Your task to perform on an android device: open app "Move to iOS" (install if not already installed) and enter user name: "Decca@icloud.com" and password: "reabbreviate" Image 0: 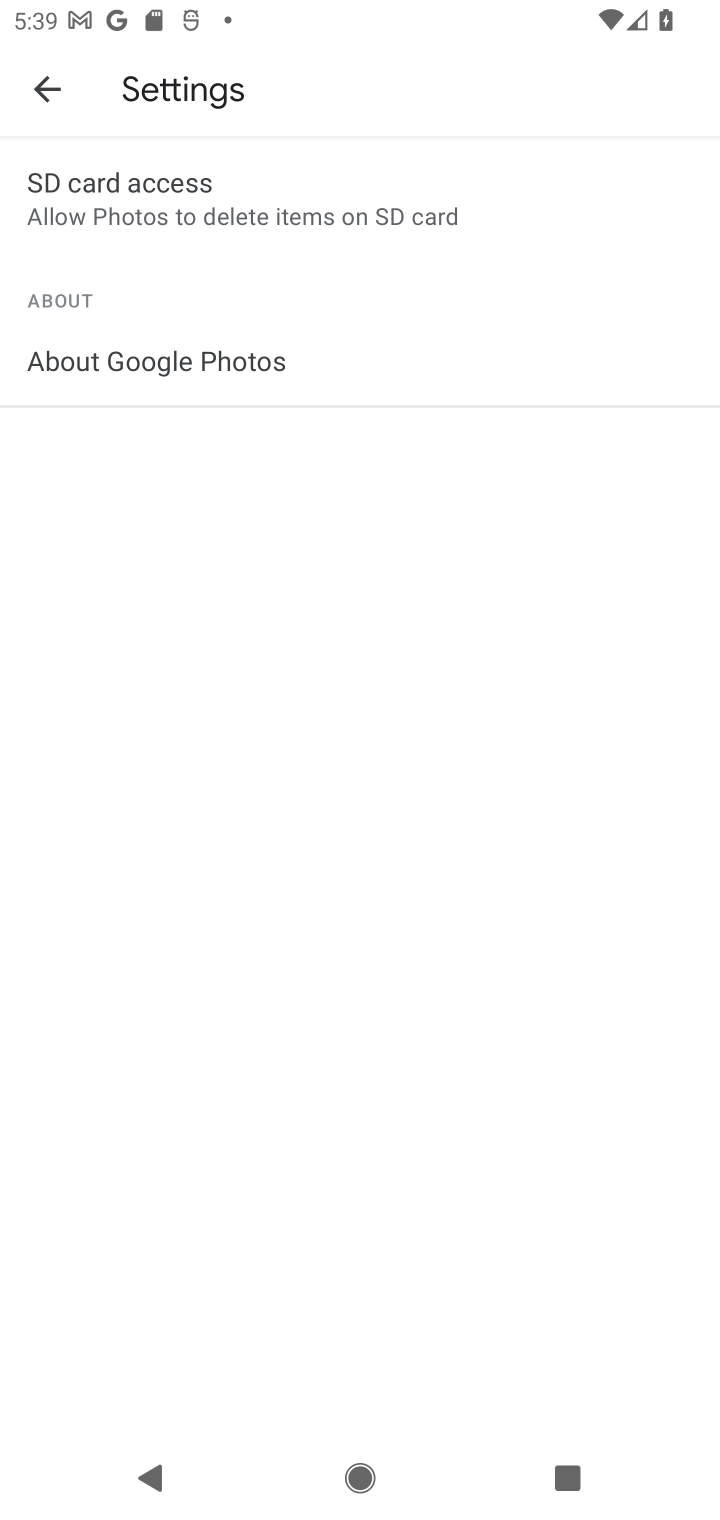
Step 0: press home button
Your task to perform on an android device: open app "Move to iOS" (install if not already installed) and enter user name: "Decca@icloud.com" and password: "reabbreviate" Image 1: 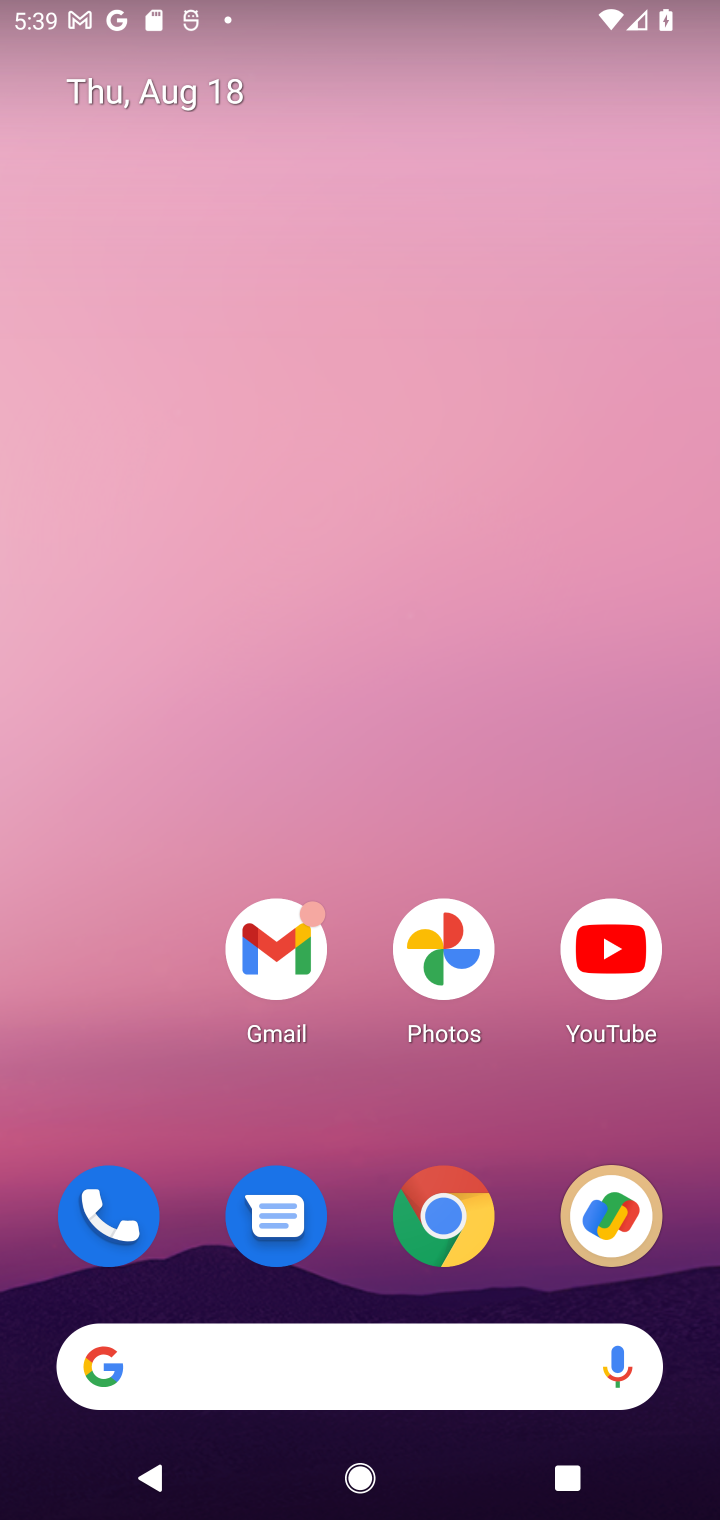
Step 1: drag from (520, 1231) to (478, 372)
Your task to perform on an android device: open app "Move to iOS" (install if not already installed) and enter user name: "Decca@icloud.com" and password: "reabbreviate" Image 2: 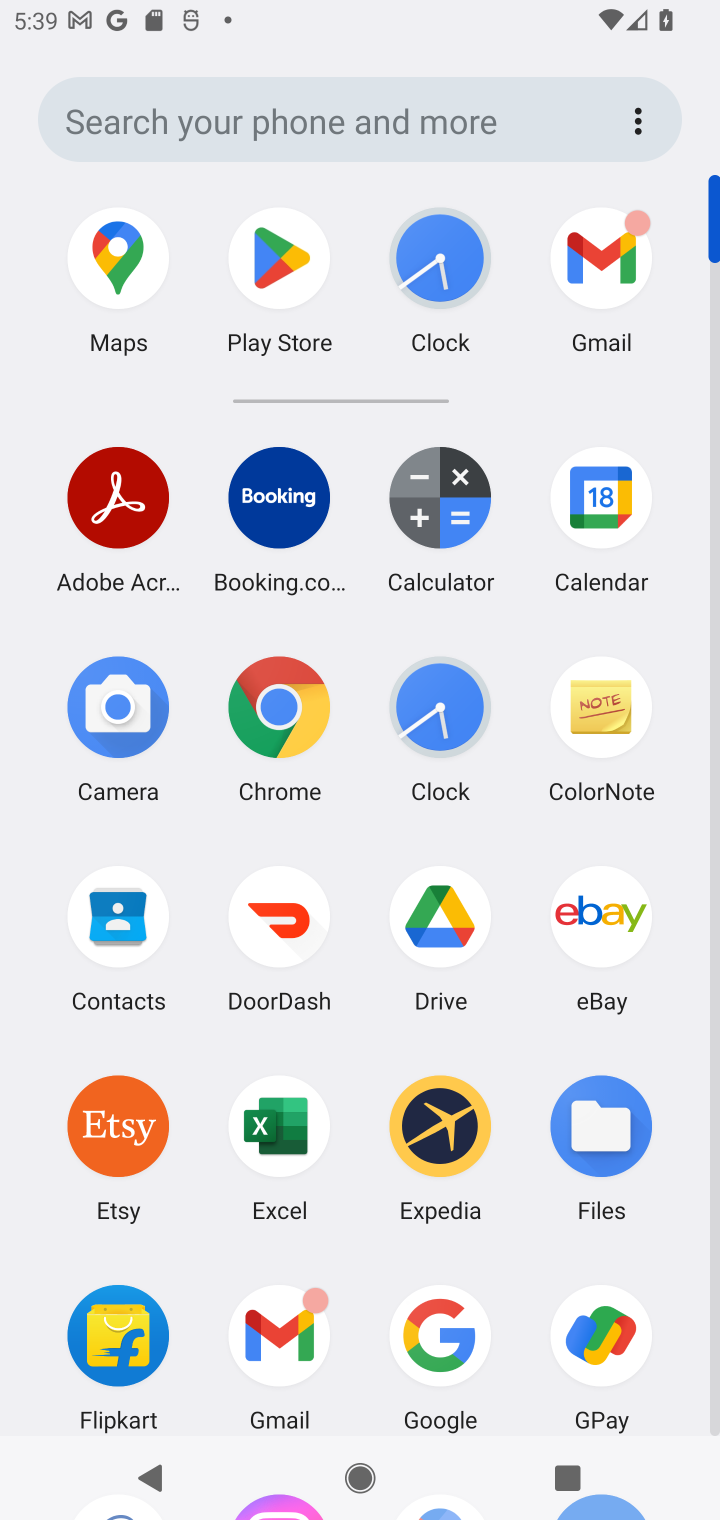
Step 2: drag from (692, 1397) to (683, 674)
Your task to perform on an android device: open app "Move to iOS" (install if not already installed) and enter user name: "Decca@icloud.com" and password: "reabbreviate" Image 3: 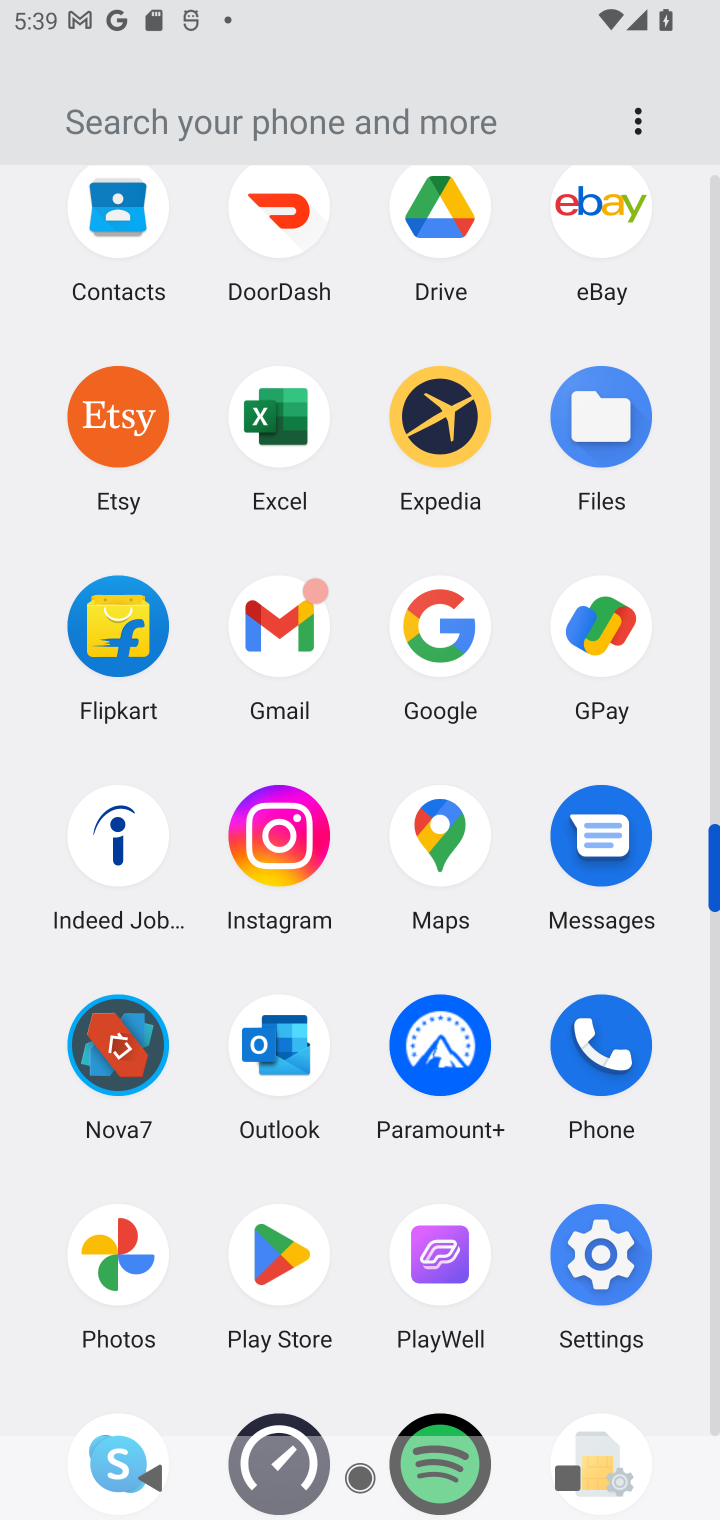
Step 3: click (277, 1253)
Your task to perform on an android device: open app "Move to iOS" (install if not already installed) and enter user name: "Decca@icloud.com" and password: "reabbreviate" Image 4: 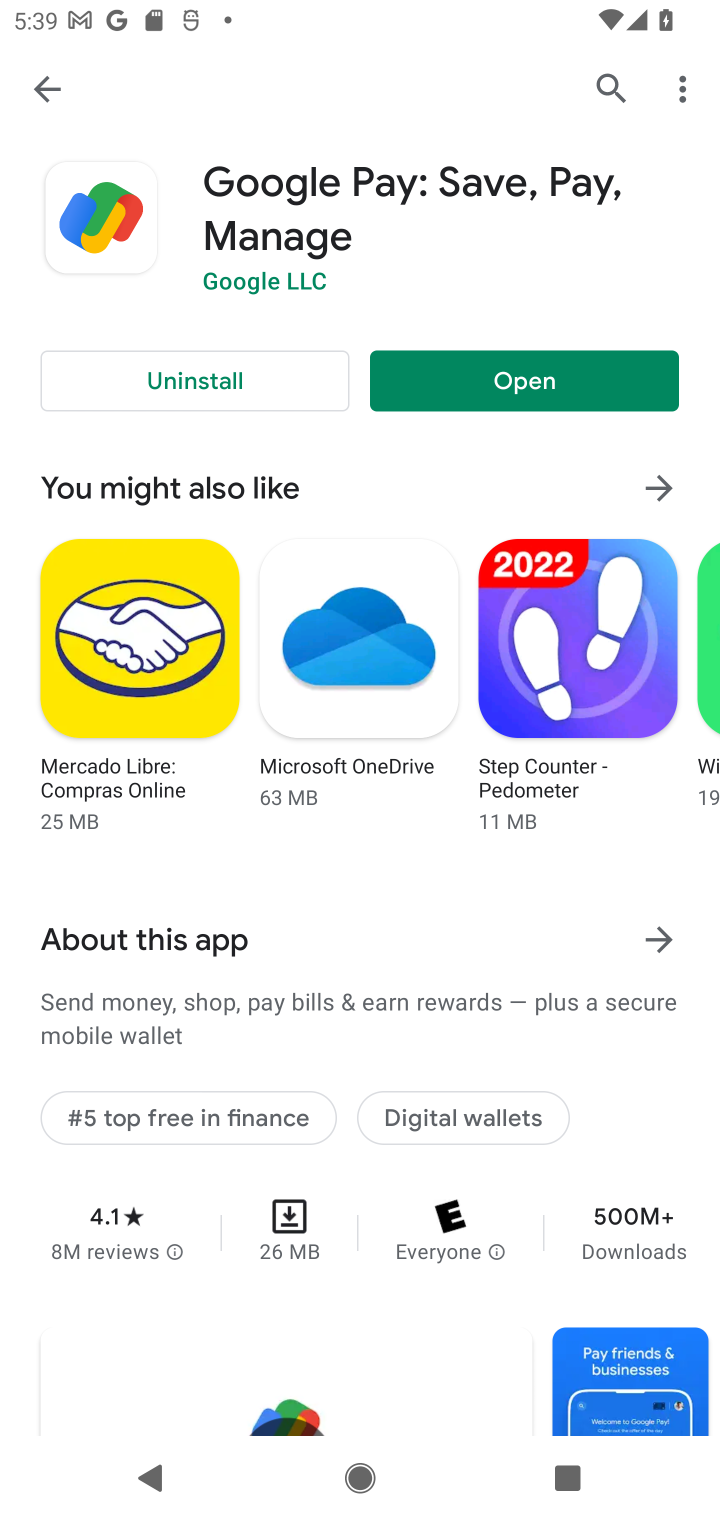
Step 4: click (595, 78)
Your task to perform on an android device: open app "Move to iOS" (install if not already installed) and enter user name: "Decca@icloud.com" and password: "reabbreviate" Image 5: 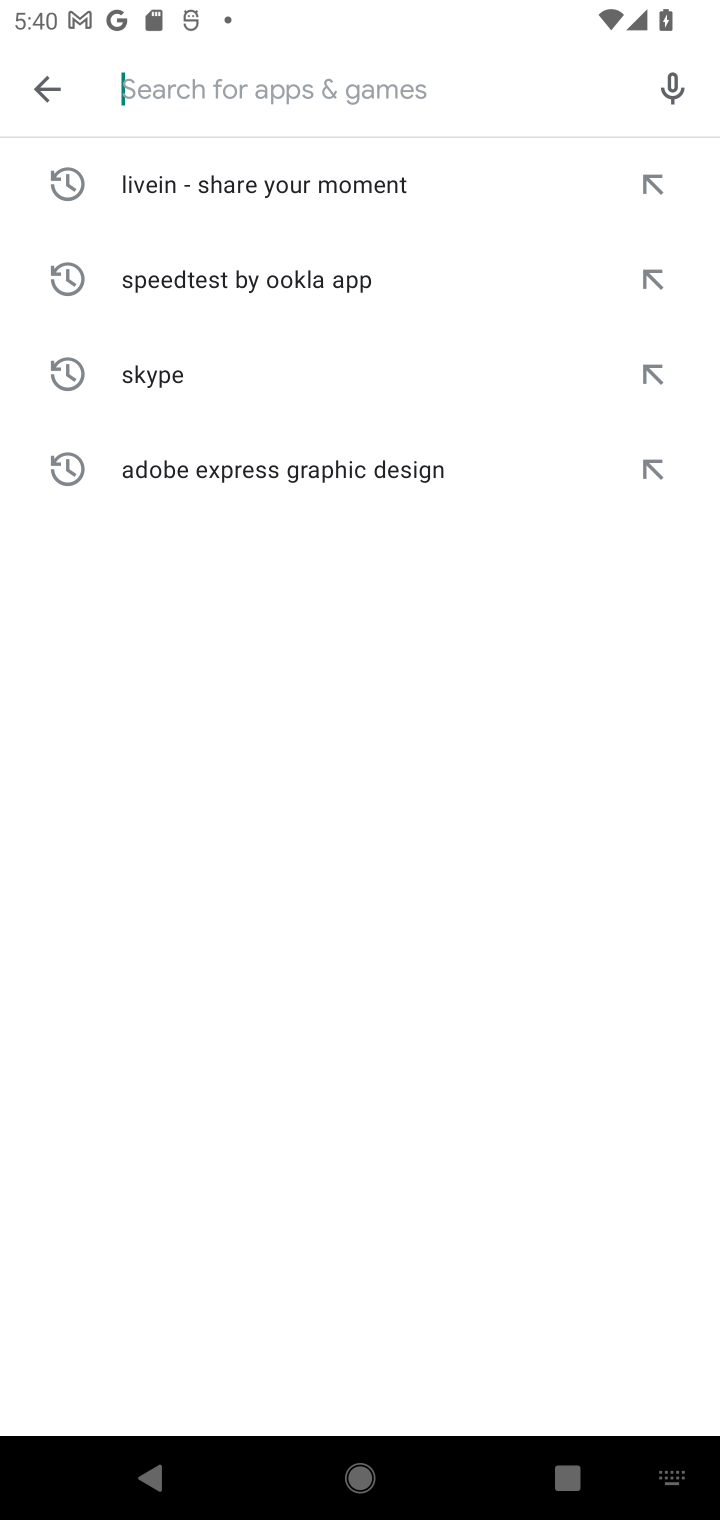
Step 5: type "Move to iOS"
Your task to perform on an android device: open app "Move to iOS" (install if not already installed) and enter user name: "Decca@icloud.com" and password: "reabbreviate" Image 6: 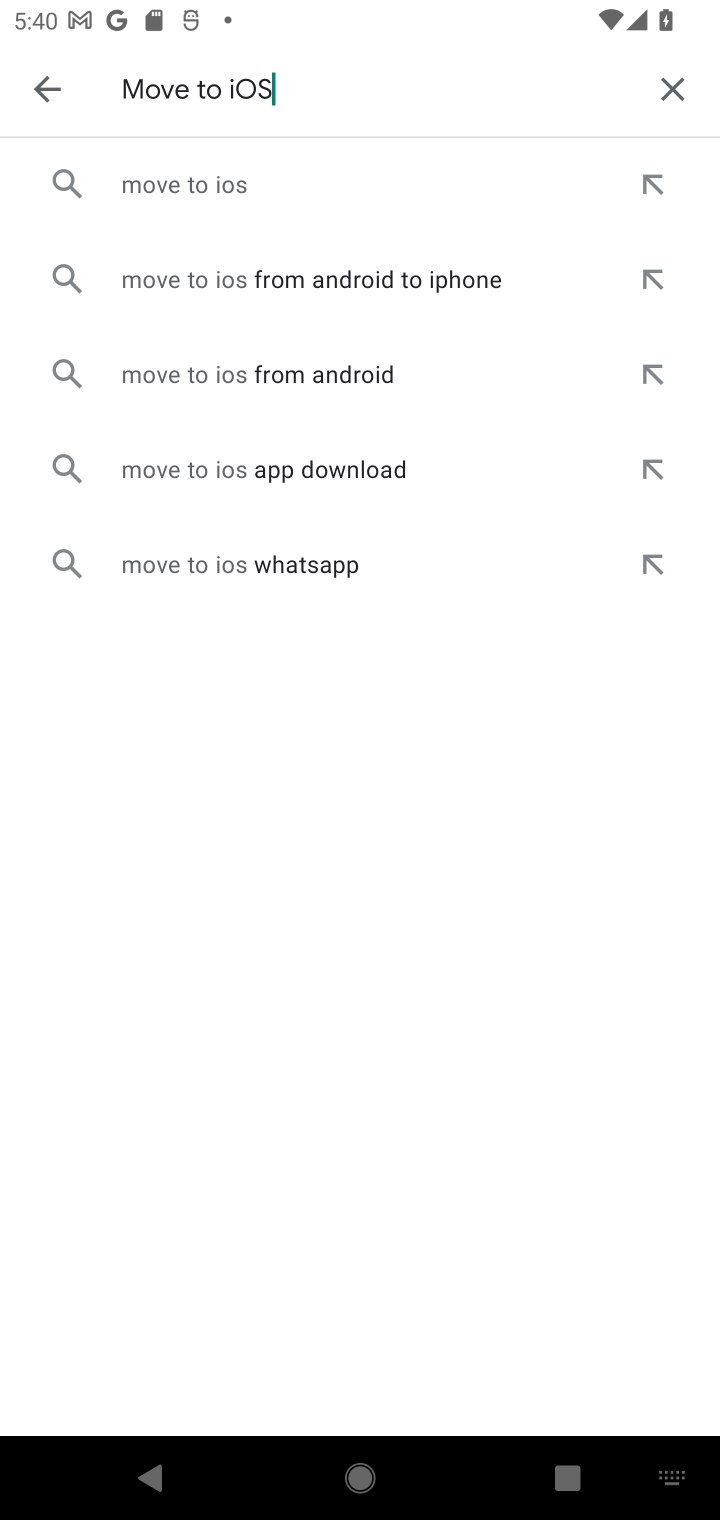
Step 6: click (185, 173)
Your task to perform on an android device: open app "Move to iOS" (install if not already installed) and enter user name: "Decca@icloud.com" and password: "reabbreviate" Image 7: 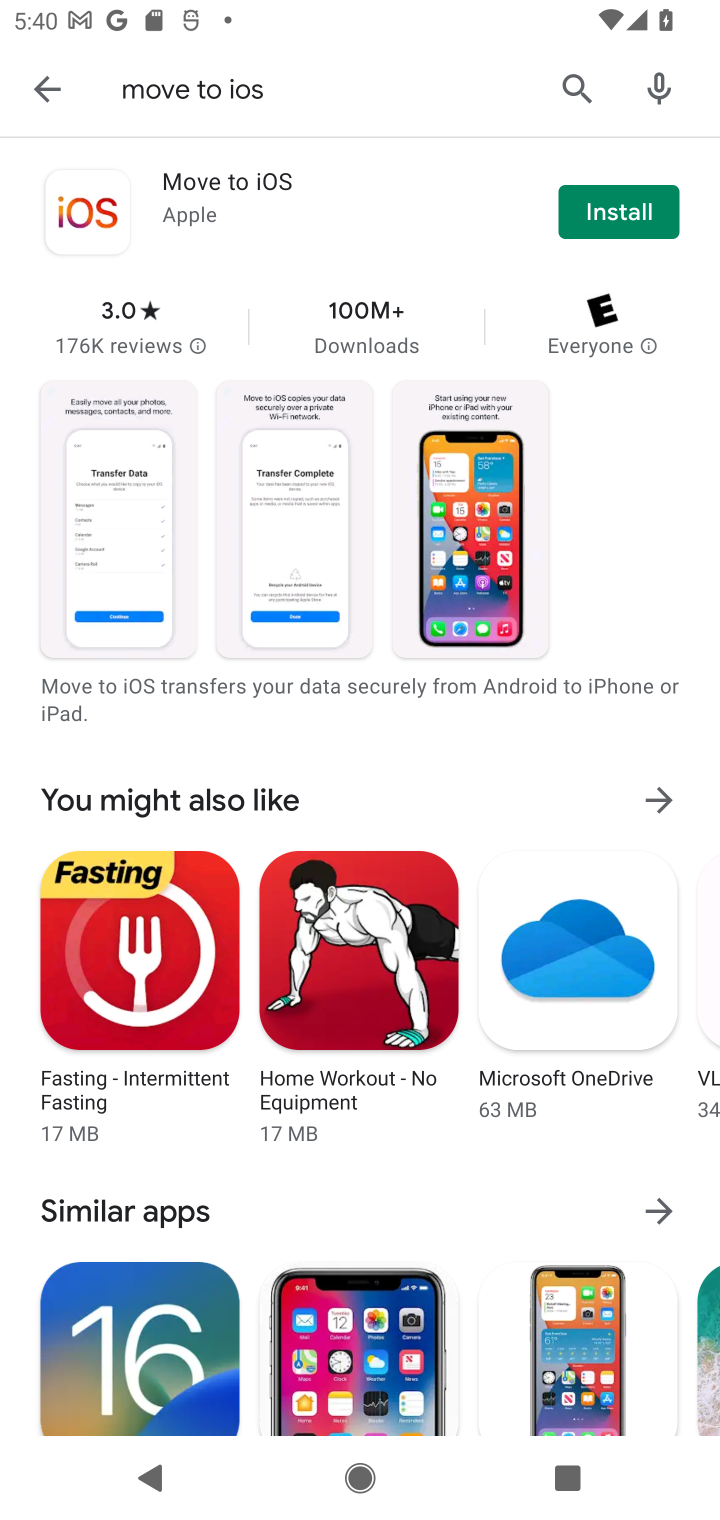
Step 7: click (618, 211)
Your task to perform on an android device: open app "Move to iOS" (install if not already installed) and enter user name: "Decca@icloud.com" and password: "reabbreviate" Image 8: 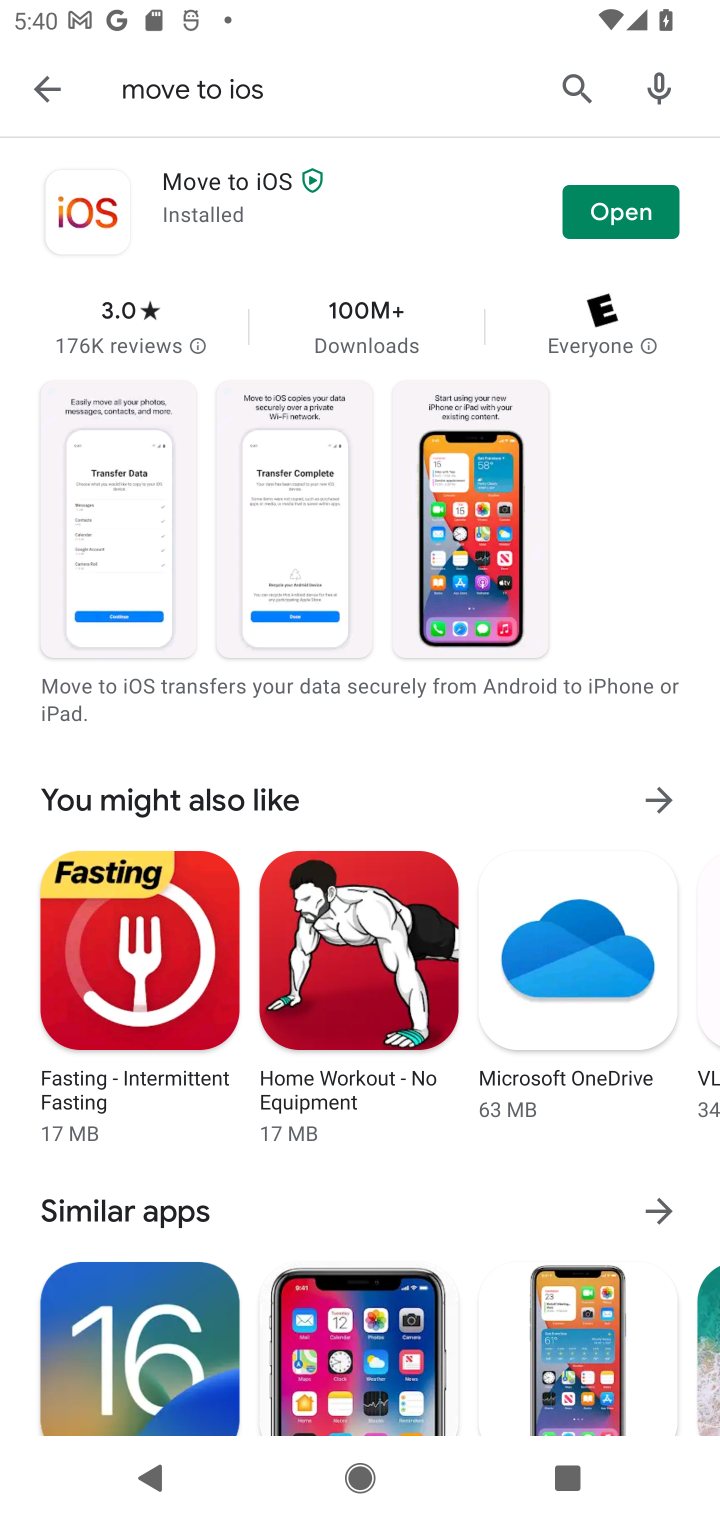
Step 8: click (619, 216)
Your task to perform on an android device: open app "Move to iOS" (install if not already installed) and enter user name: "Decca@icloud.com" and password: "reabbreviate" Image 9: 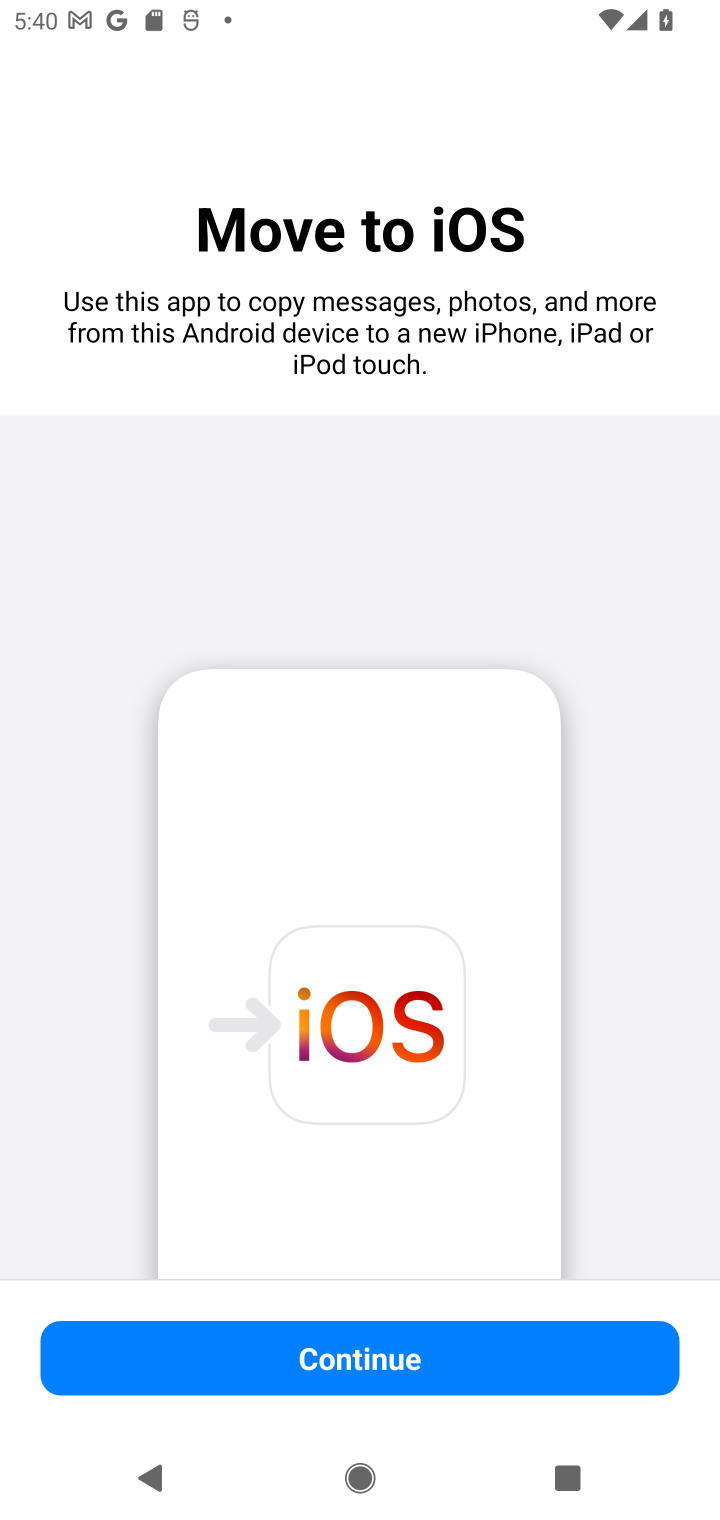
Step 9: click (347, 1362)
Your task to perform on an android device: open app "Move to iOS" (install if not already installed) and enter user name: "Decca@icloud.com" and password: "reabbreviate" Image 10: 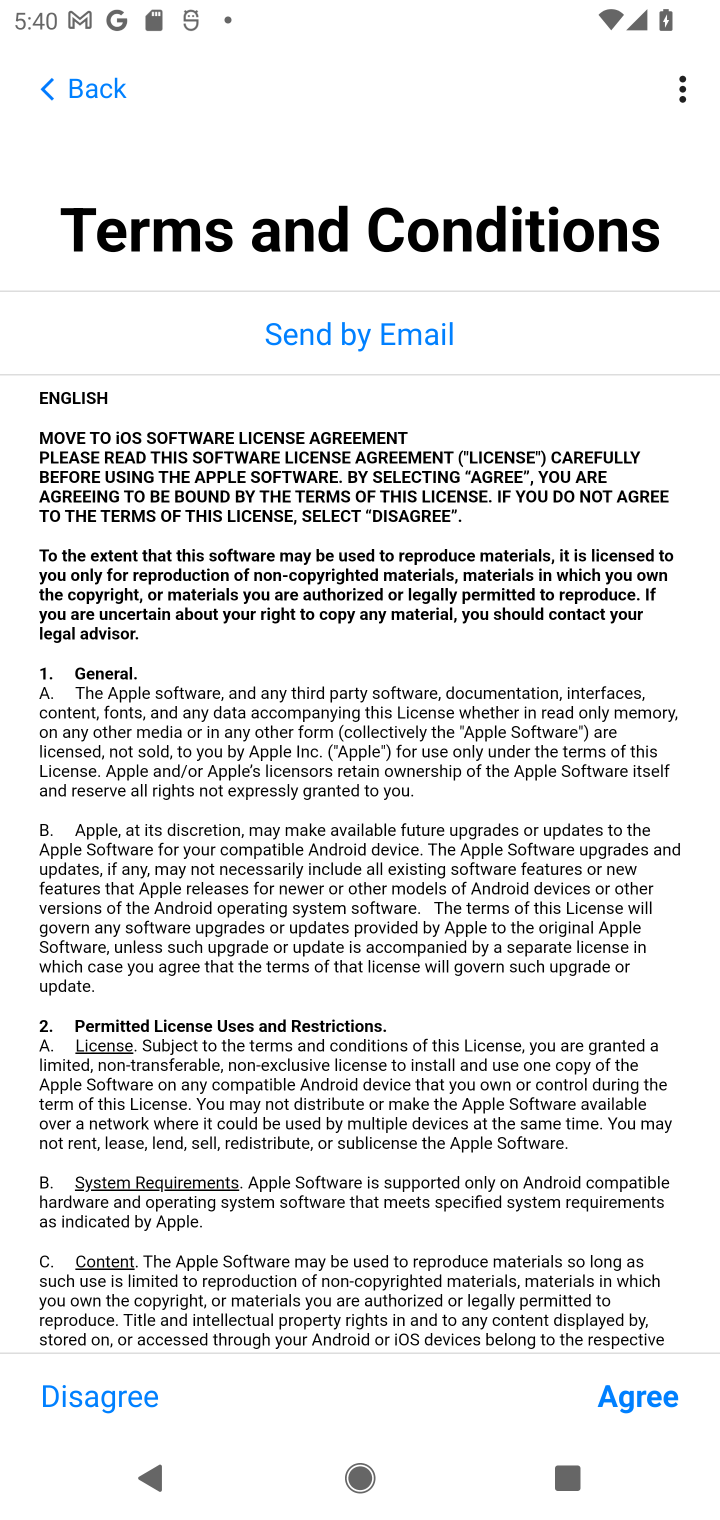
Step 10: click (634, 1402)
Your task to perform on an android device: open app "Move to iOS" (install if not already installed) and enter user name: "Decca@icloud.com" and password: "reabbreviate" Image 11: 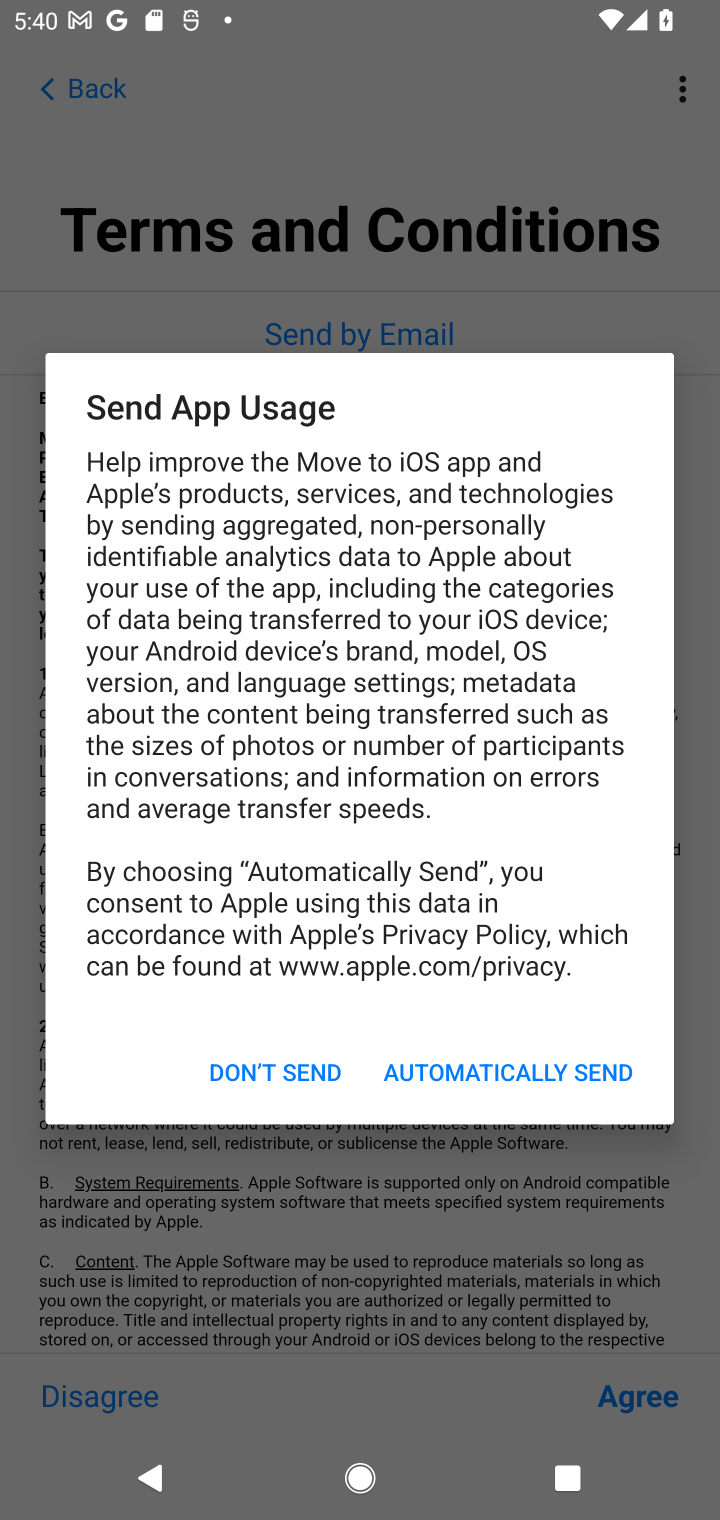
Step 11: click (275, 1071)
Your task to perform on an android device: open app "Move to iOS" (install if not already installed) and enter user name: "Decca@icloud.com" and password: "reabbreviate" Image 12: 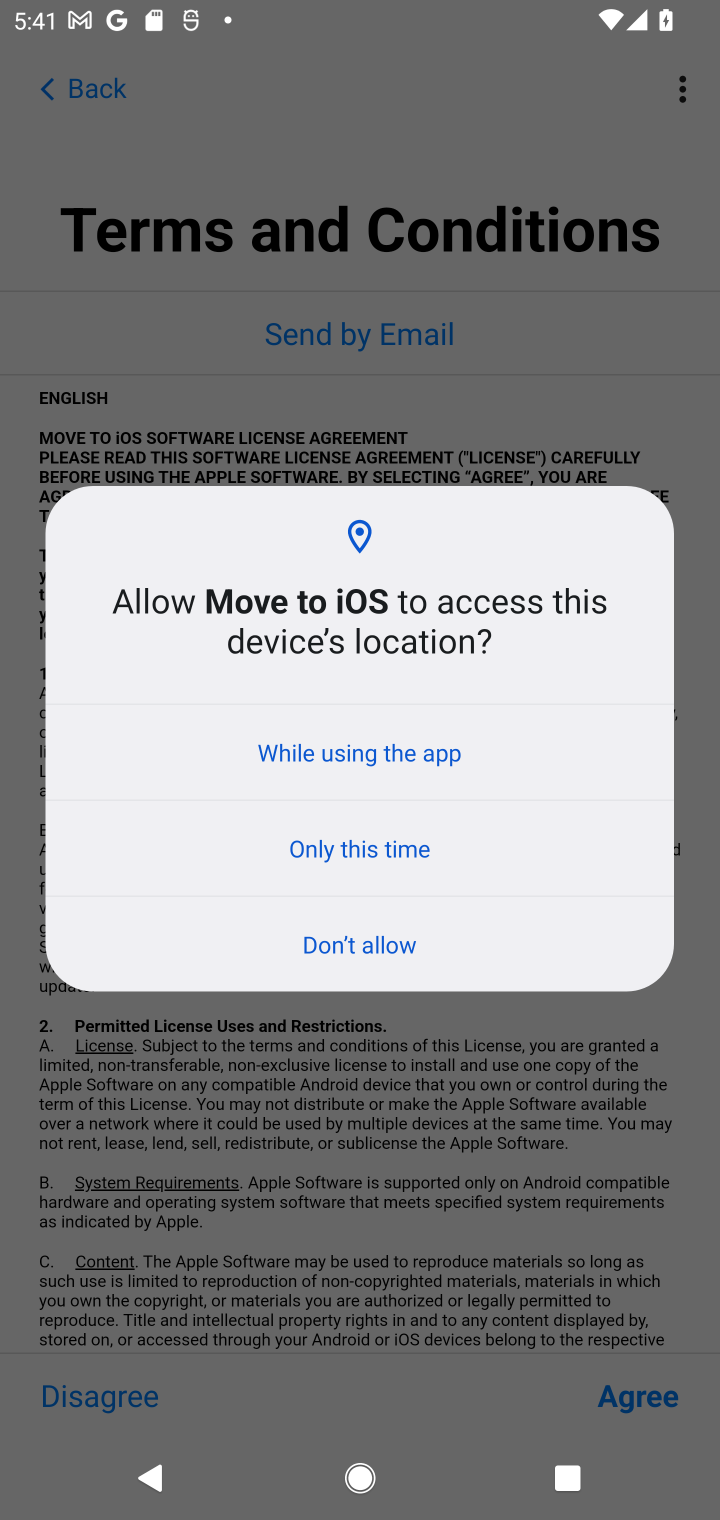
Step 12: click (359, 745)
Your task to perform on an android device: open app "Move to iOS" (install if not already installed) and enter user name: "Decca@icloud.com" and password: "reabbreviate" Image 13: 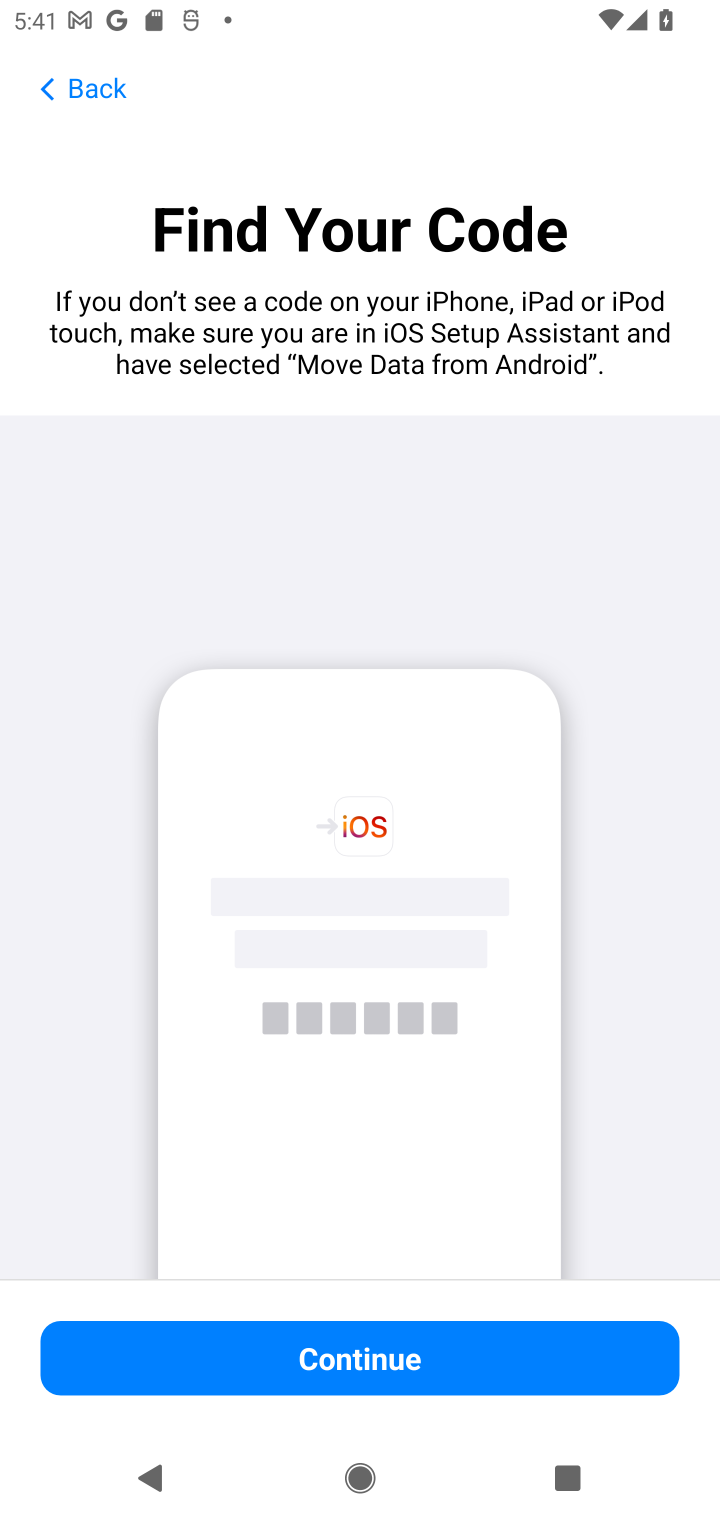
Step 13: click (376, 1362)
Your task to perform on an android device: open app "Move to iOS" (install if not already installed) and enter user name: "Decca@icloud.com" and password: "reabbreviate" Image 14: 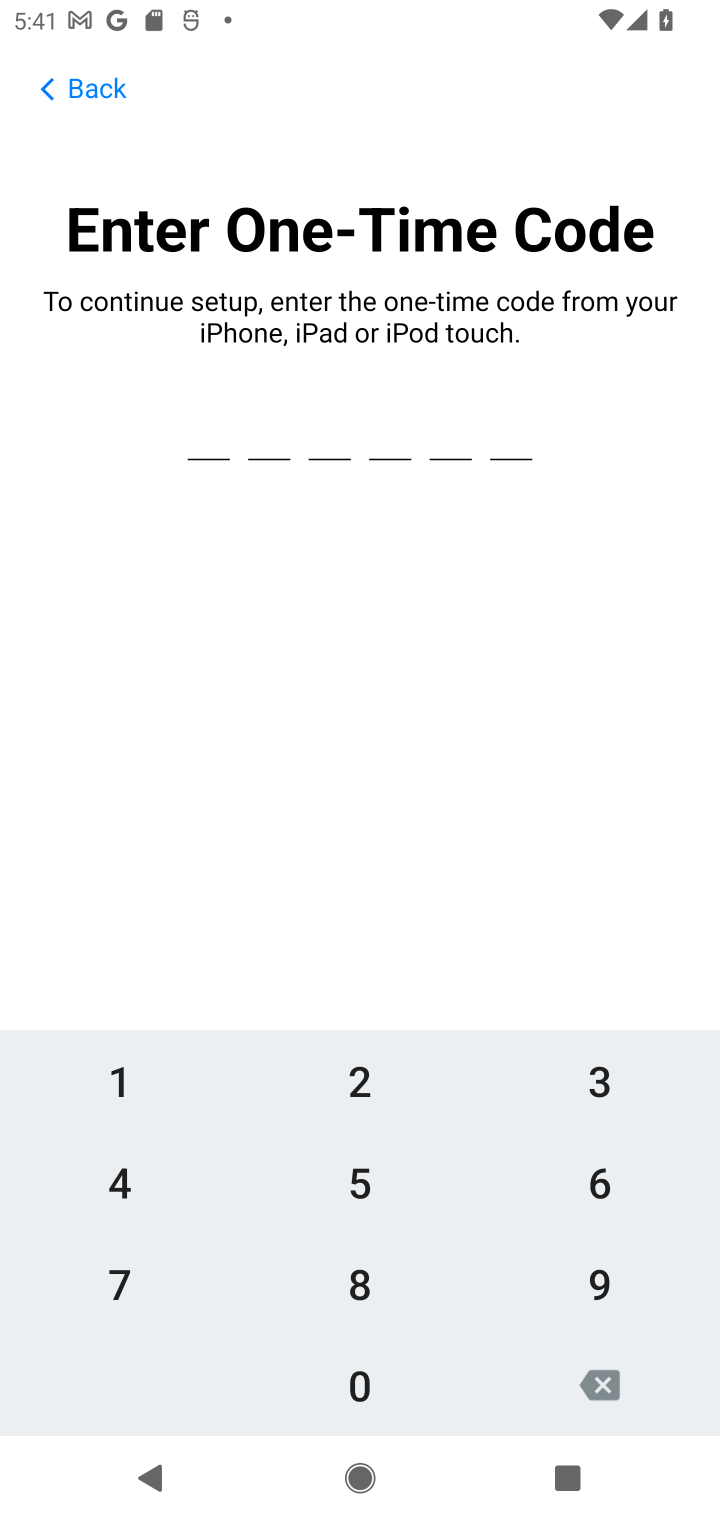
Step 14: task complete